Your task to perform on an android device: Go to Yahoo.com Image 0: 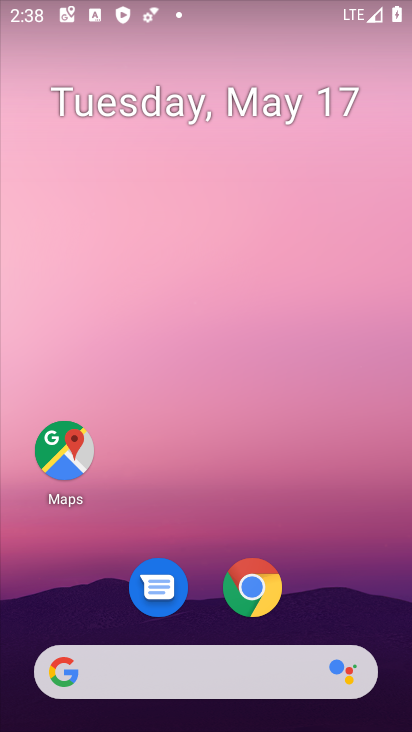
Step 0: drag from (202, 631) to (215, 5)
Your task to perform on an android device: Go to Yahoo.com Image 1: 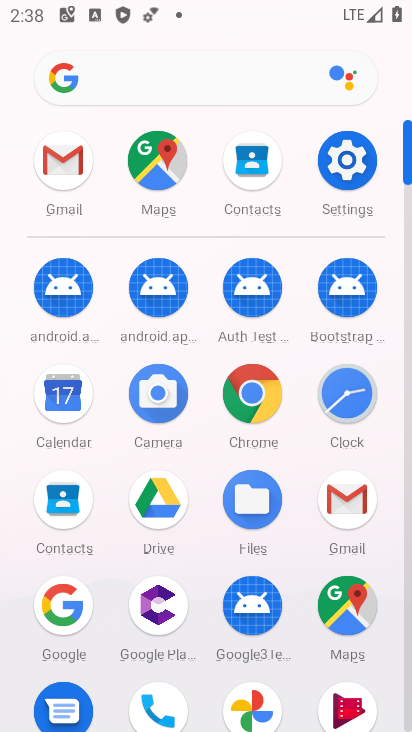
Step 1: click (200, 69)
Your task to perform on an android device: Go to Yahoo.com Image 2: 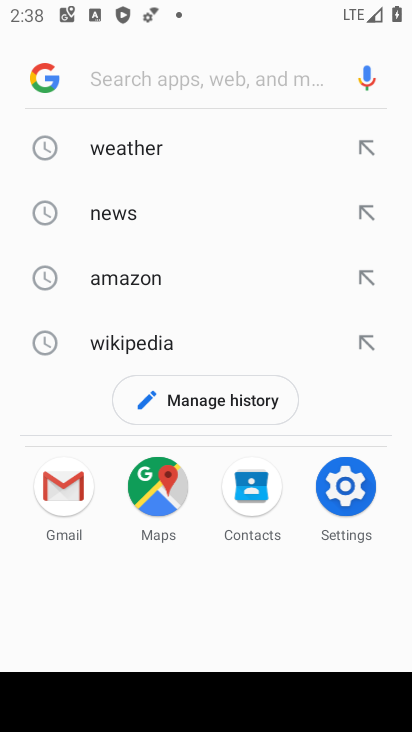
Step 2: type "yahoo.com"
Your task to perform on an android device: Go to Yahoo.com Image 3: 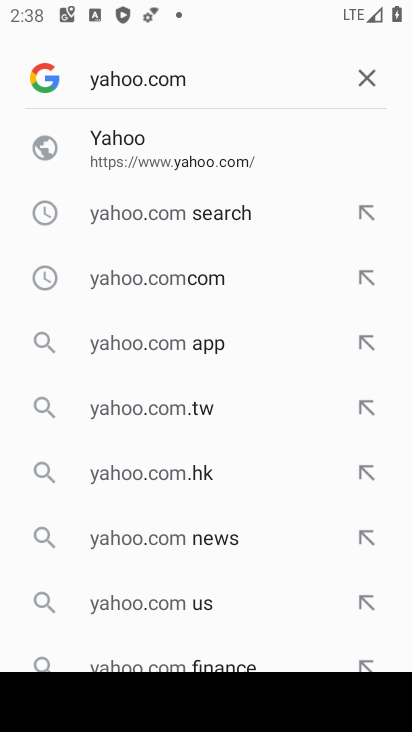
Step 3: click (164, 144)
Your task to perform on an android device: Go to Yahoo.com Image 4: 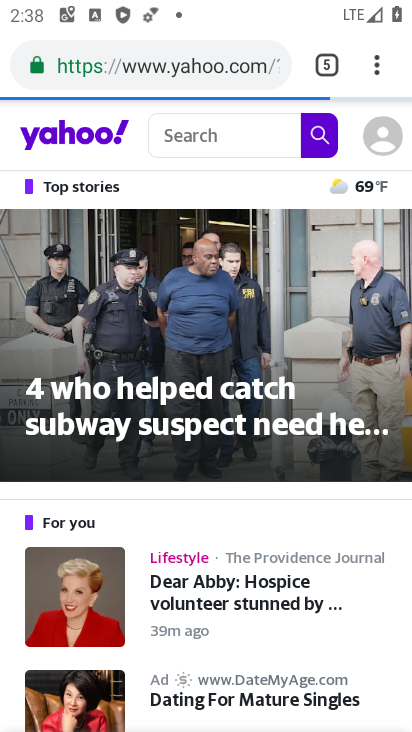
Step 4: task complete